Your task to perform on an android device: Is it going to rain today? Image 0: 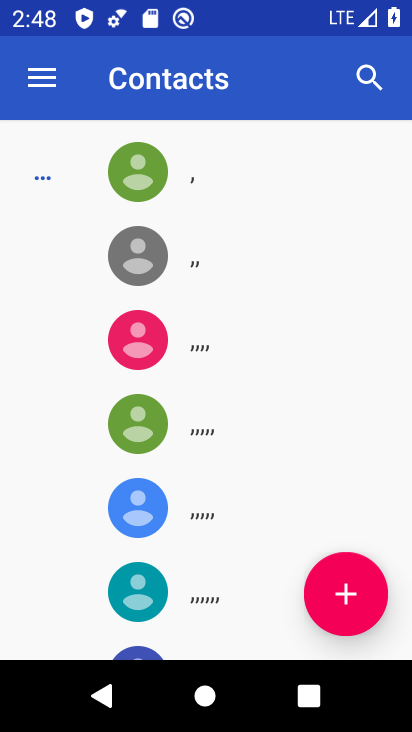
Step 0: press home button
Your task to perform on an android device: Is it going to rain today? Image 1: 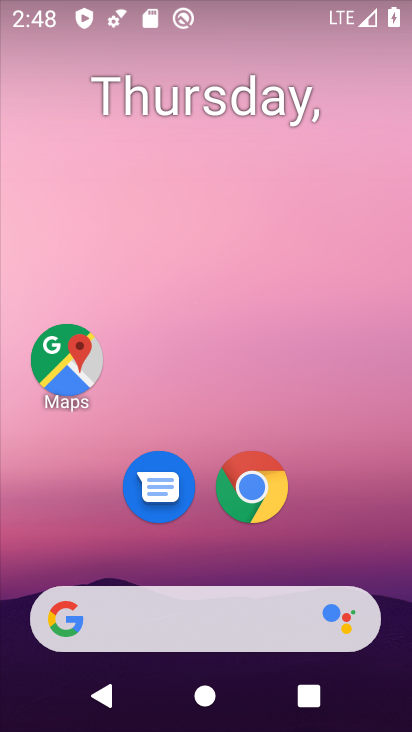
Step 1: click (52, 633)
Your task to perform on an android device: Is it going to rain today? Image 2: 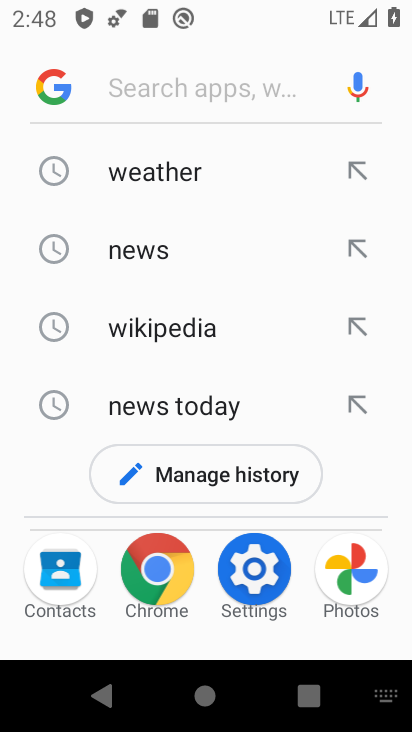
Step 2: click (64, 110)
Your task to perform on an android device: Is it going to rain today? Image 3: 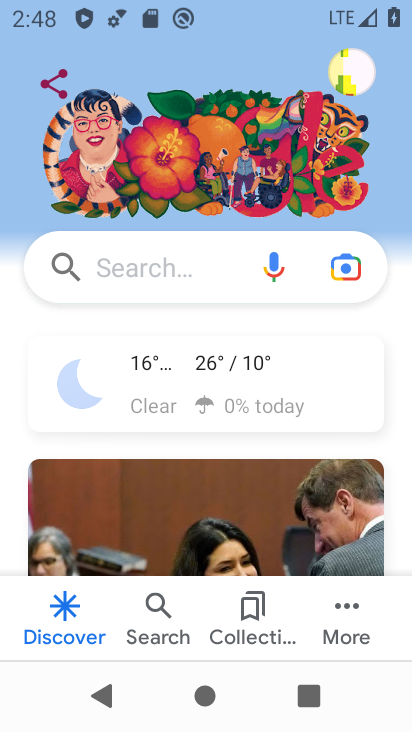
Step 3: click (193, 379)
Your task to perform on an android device: Is it going to rain today? Image 4: 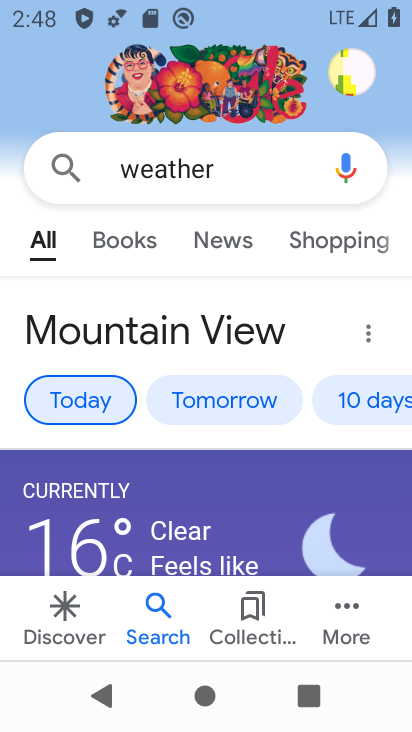
Step 4: task complete